Your task to perform on an android device: Open the phone app and click the voicemail tab. Image 0: 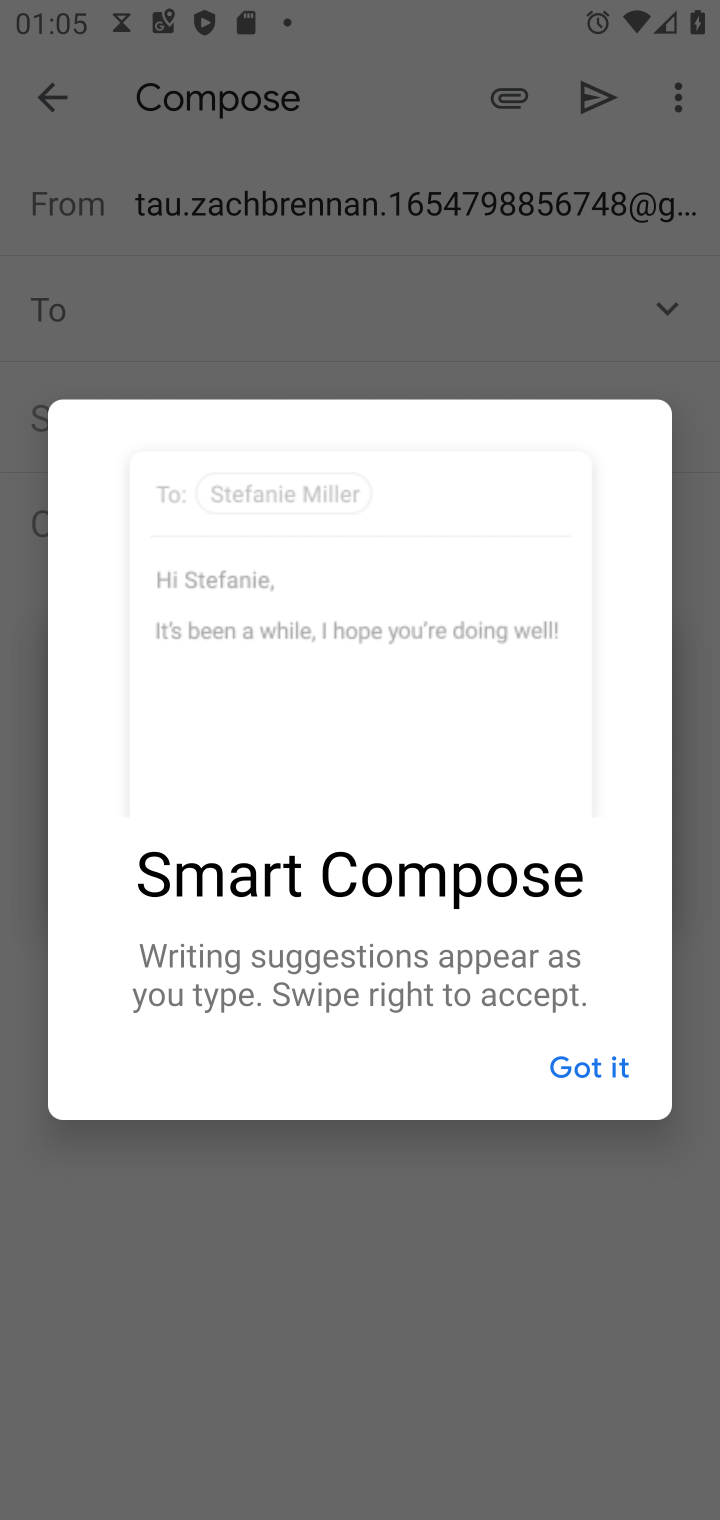
Step 0: press home button
Your task to perform on an android device: Open the phone app and click the voicemail tab. Image 1: 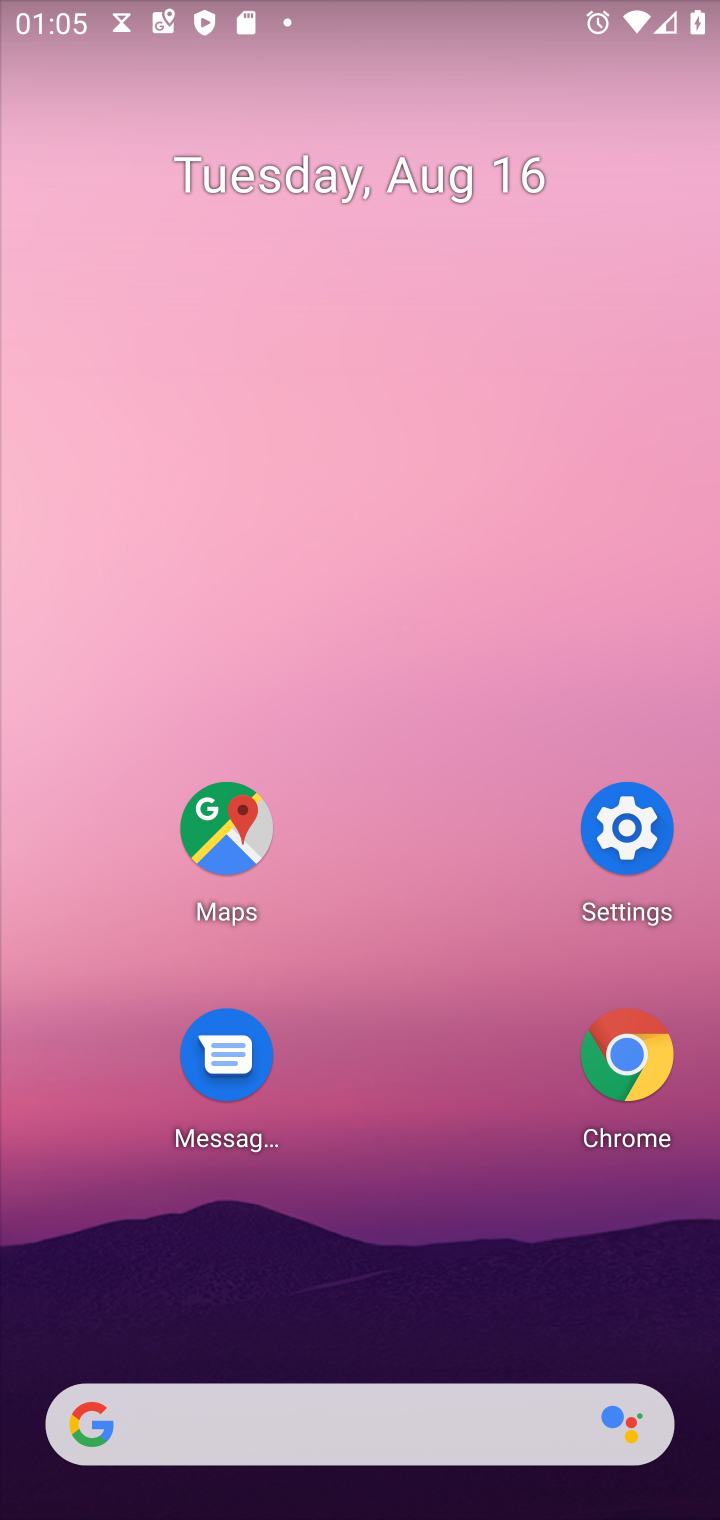
Step 1: drag from (327, 1105) to (470, 63)
Your task to perform on an android device: Open the phone app and click the voicemail tab. Image 2: 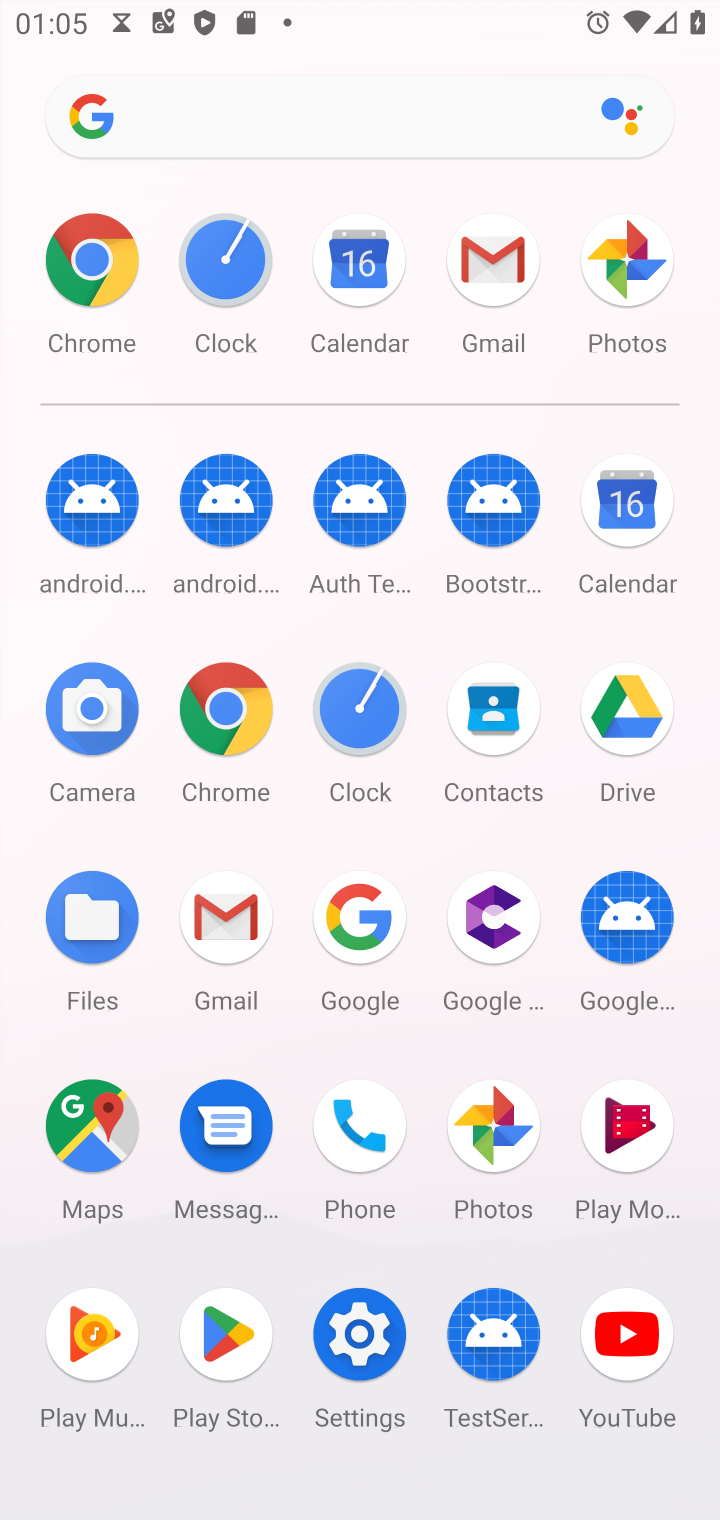
Step 2: click (344, 1121)
Your task to perform on an android device: Open the phone app and click the voicemail tab. Image 3: 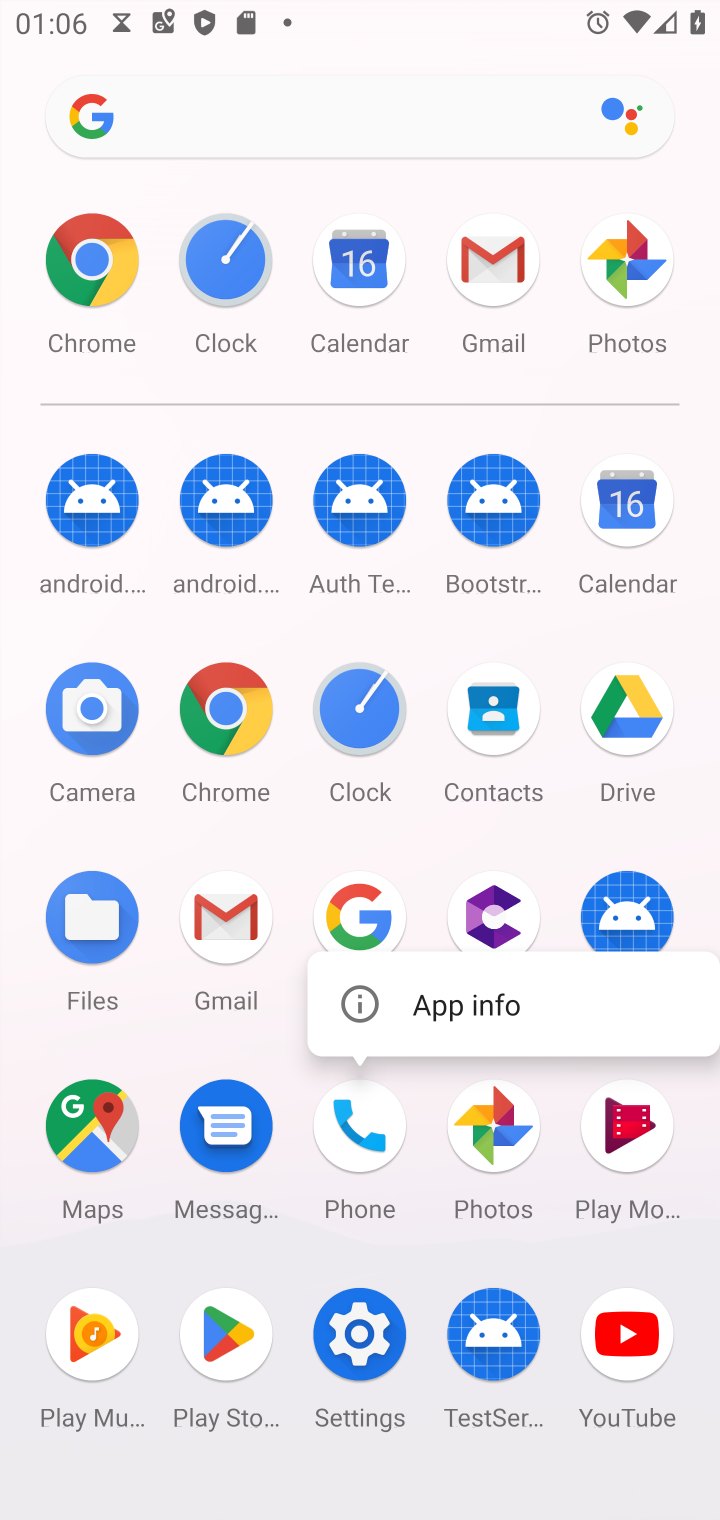
Step 3: click (365, 1133)
Your task to perform on an android device: Open the phone app and click the voicemail tab. Image 4: 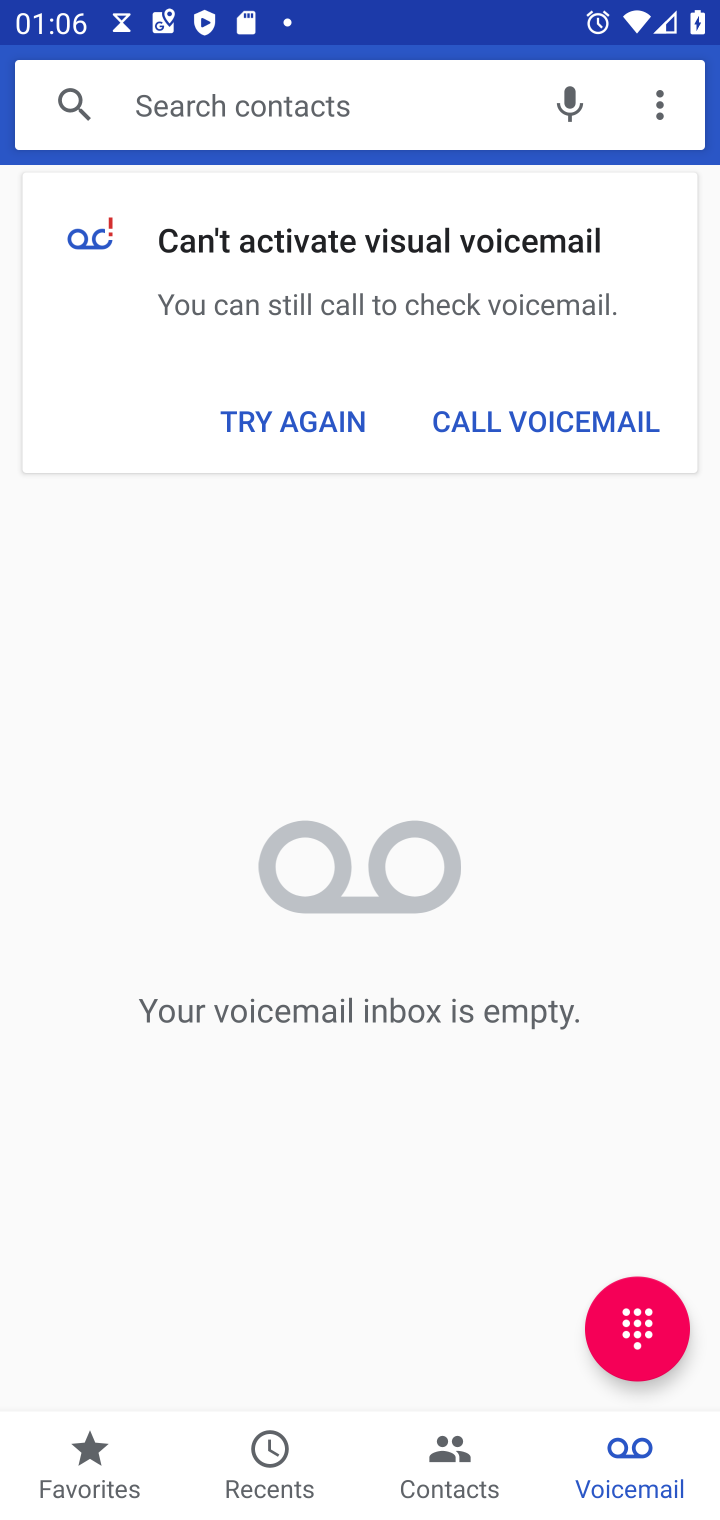
Step 4: task complete